Your task to perform on an android device: open app "Grab" (install if not already installed) Image 0: 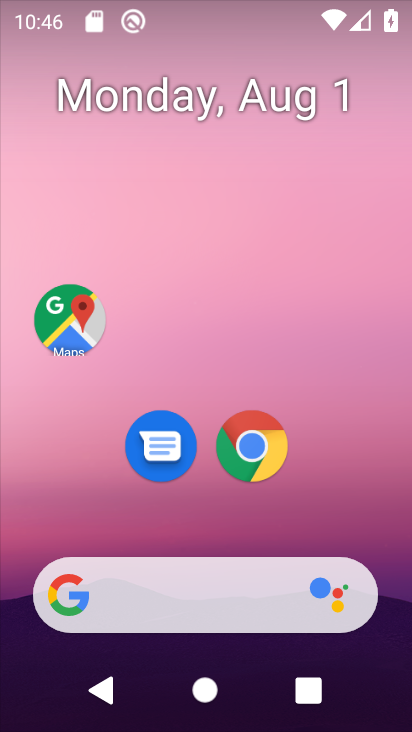
Step 0: drag from (213, 530) to (169, 107)
Your task to perform on an android device: open app "Grab" (install if not already installed) Image 1: 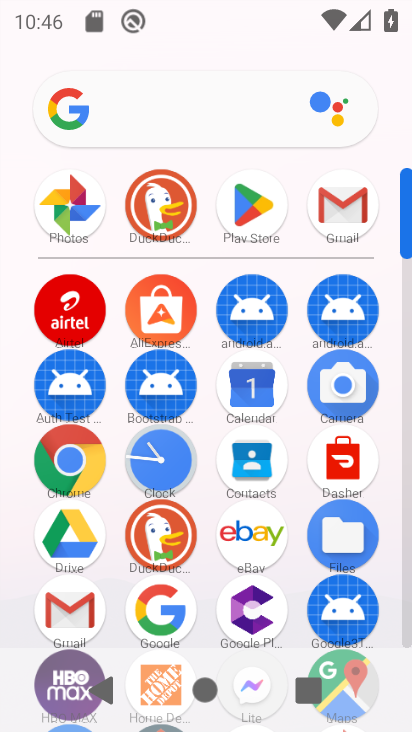
Step 1: click (248, 218)
Your task to perform on an android device: open app "Grab" (install if not already installed) Image 2: 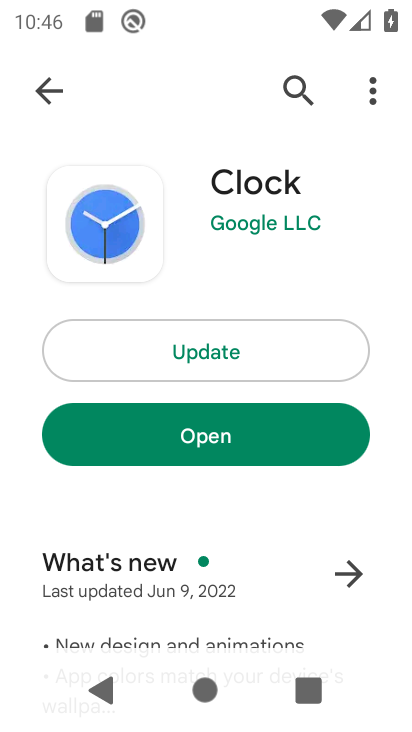
Step 2: click (305, 86)
Your task to perform on an android device: open app "Grab" (install if not already installed) Image 3: 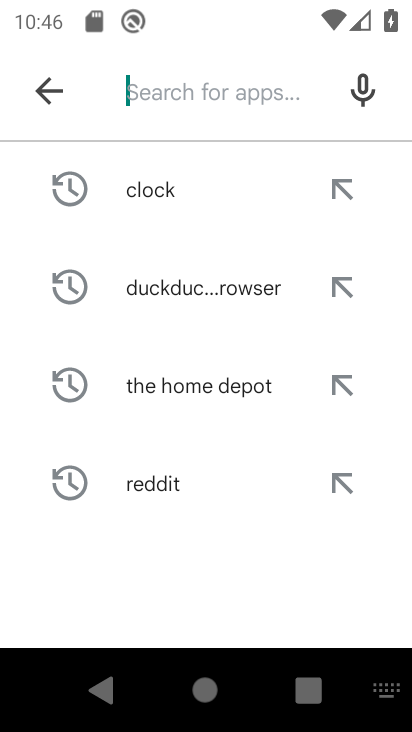
Step 3: type "Grab"
Your task to perform on an android device: open app "Grab" (install if not already installed) Image 4: 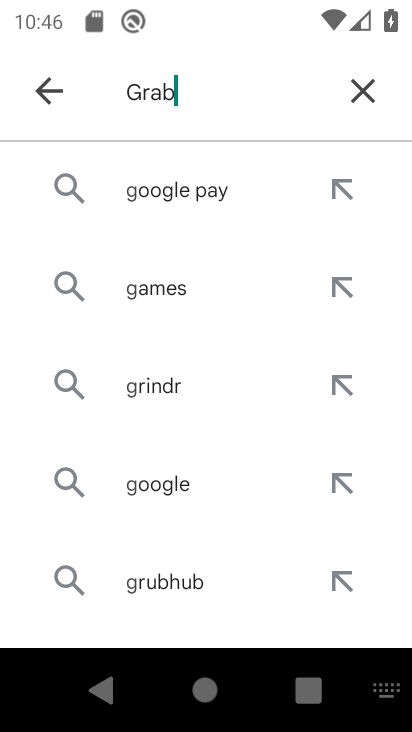
Step 4: type ""
Your task to perform on an android device: open app "Grab" (install if not already installed) Image 5: 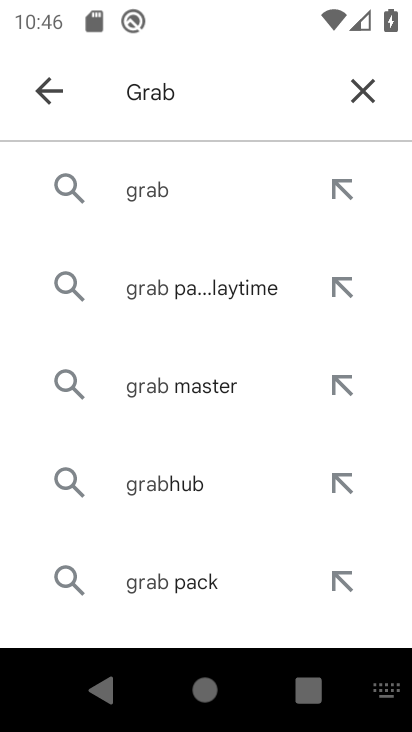
Step 5: click (193, 196)
Your task to perform on an android device: open app "Grab" (install if not already installed) Image 6: 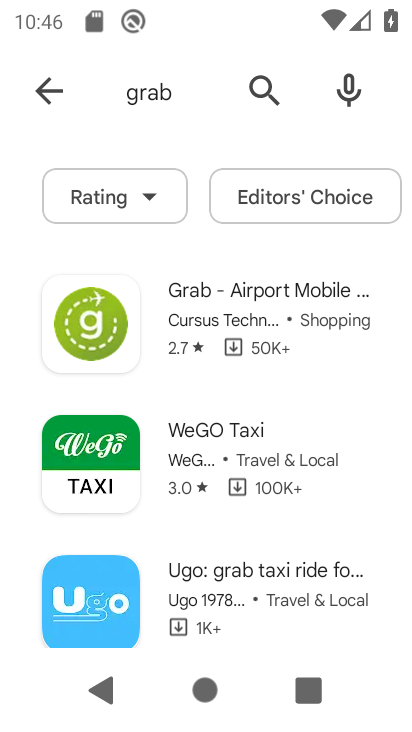
Step 6: click (232, 311)
Your task to perform on an android device: open app "Grab" (install if not already installed) Image 7: 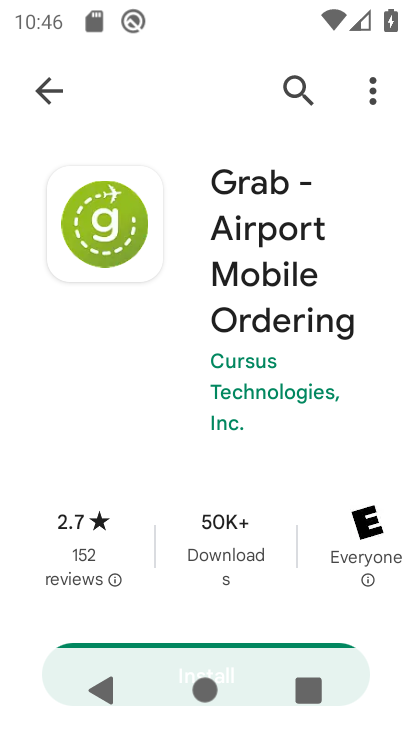
Step 7: drag from (268, 567) to (301, 227)
Your task to perform on an android device: open app "Grab" (install if not already installed) Image 8: 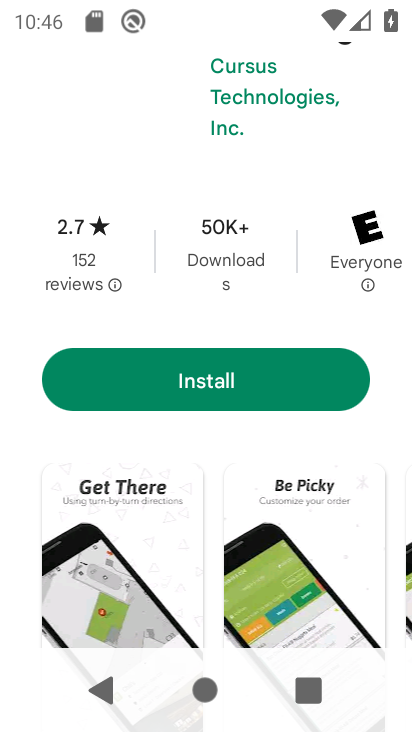
Step 8: click (247, 389)
Your task to perform on an android device: open app "Grab" (install if not already installed) Image 9: 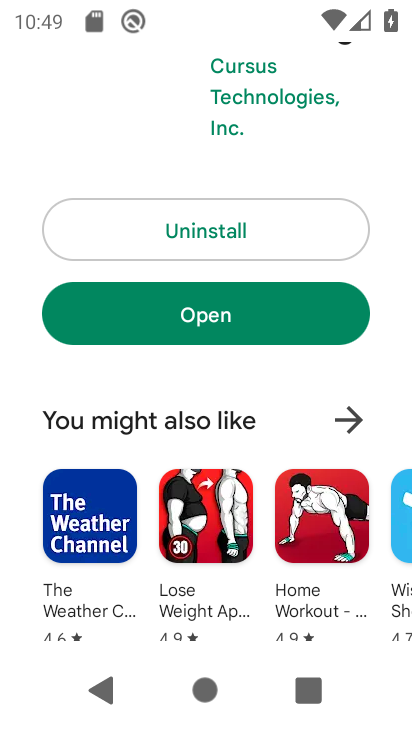
Step 9: click (218, 328)
Your task to perform on an android device: open app "Grab" (install if not already installed) Image 10: 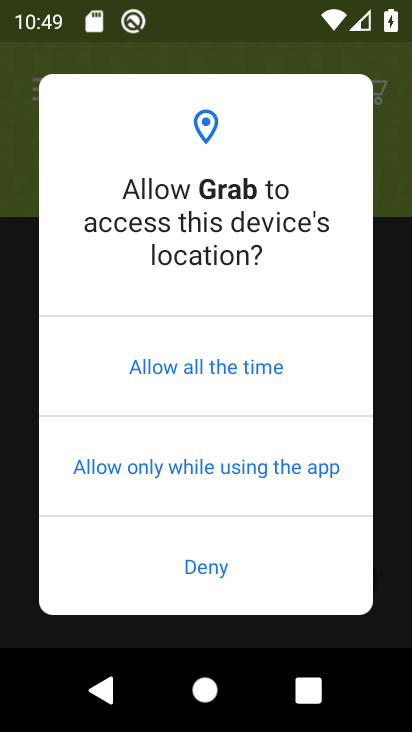
Step 10: task complete